Your task to perform on an android device: turn on javascript in the chrome app Image 0: 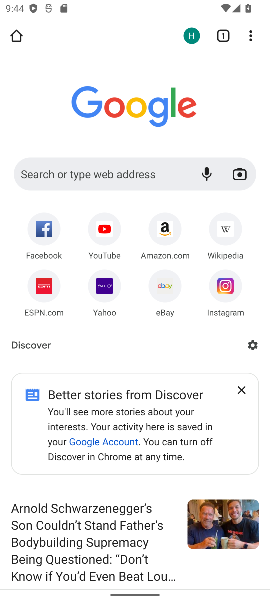
Step 0: click (250, 32)
Your task to perform on an android device: turn on javascript in the chrome app Image 1: 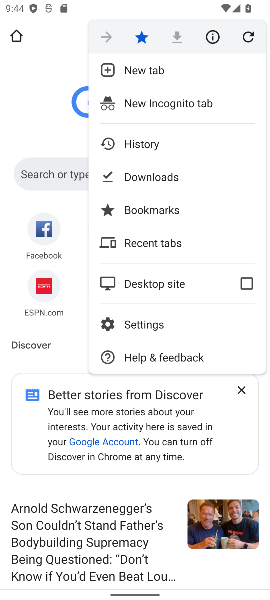
Step 1: click (141, 319)
Your task to perform on an android device: turn on javascript in the chrome app Image 2: 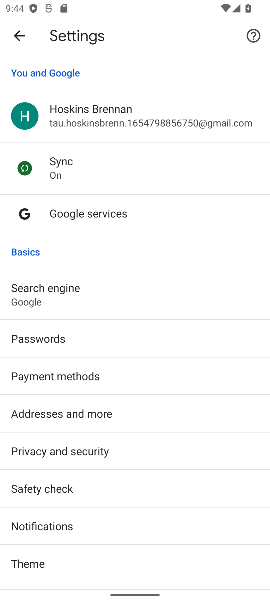
Step 2: drag from (169, 523) to (171, 226)
Your task to perform on an android device: turn on javascript in the chrome app Image 3: 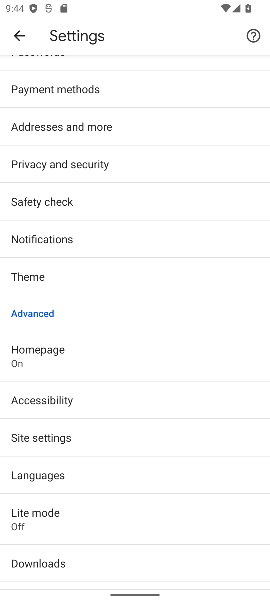
Step 3: click (52, 434)
Your task to perform on an android device: turn on javascript in the chrome app Image 4: 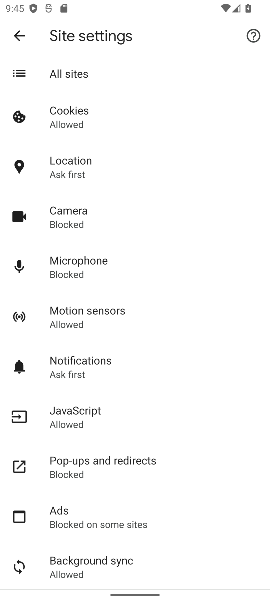
Step 4: click (71, 420)
Your task to perform on an android device: turn on javascript in the chrome app Image 5: 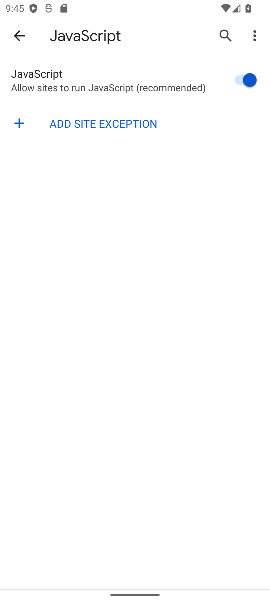
Step 5: task complete